Your task to perform on an android device: turn on sleep mode Image 0: 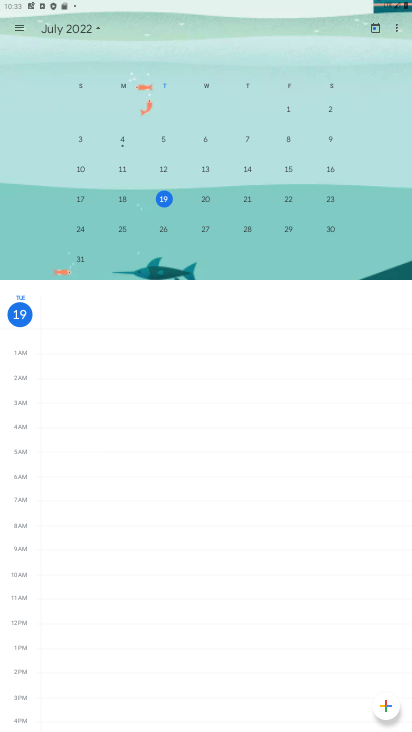
Step 0: press home button
Your task to perform on an android device: turn on sleep mode Image 1: 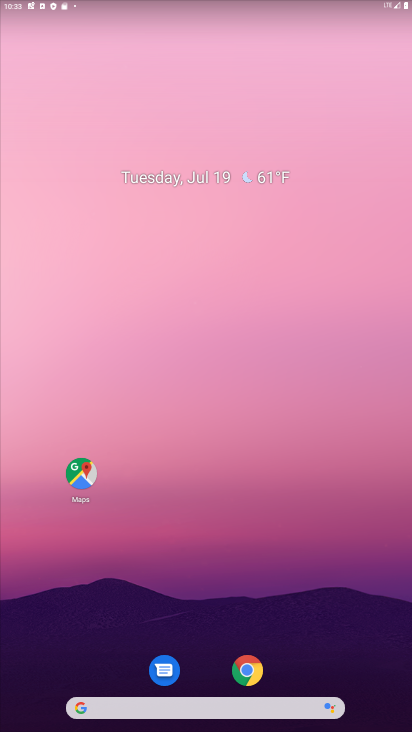
Step 1: drag from (107, 731) to (165, 228)
Your task to perform on an android device: turn on sleep mode Image 2: 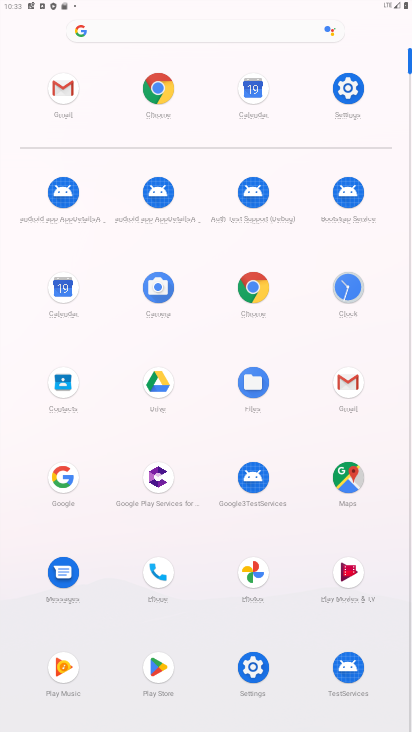
Step 2: click (353, 101)
Your task to perform on an android device: turn on sleep mode Image 3: 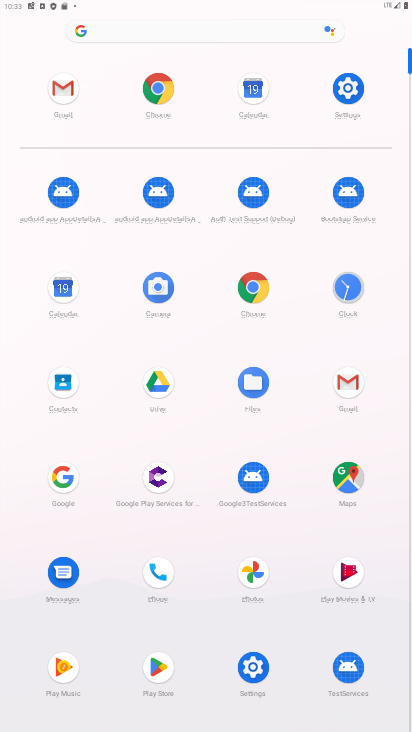
Step 3: click (353, 101)
Your task to perform on an android device: turn on sleep mode Image 4: 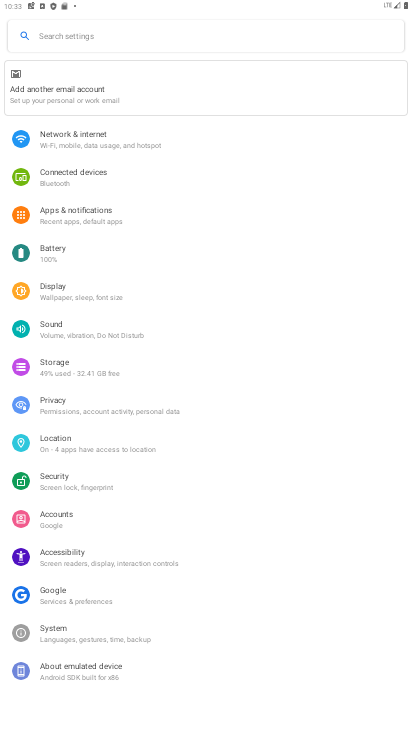
Step 4: click (102, 295)
Your task to perform on an android device: turn on sleep mode Image 5: 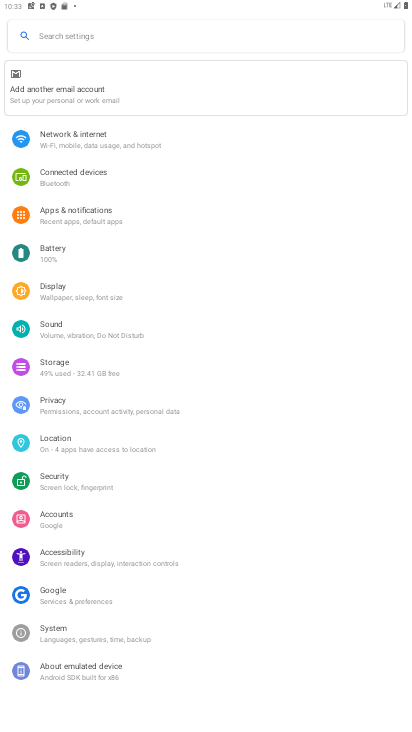
Step 5: click (102, 295)
Your task to perform on an android device: turn on sleep mode Image 6: 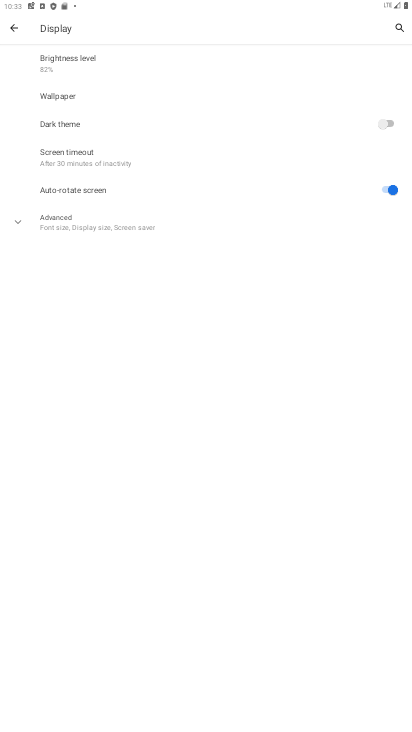
Step 6: task complete